Your task to perform on an android device: turn off notifications in google photos Image 0: 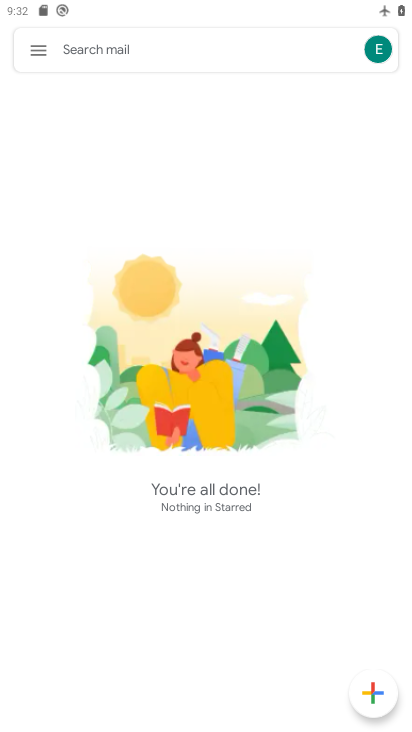
Step 0: press home button
Your task to perform on an android device: turn off notifications in google photos Image 1: 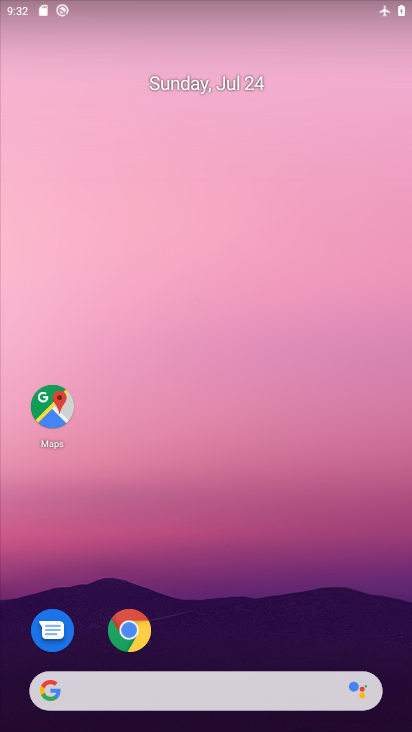
Step 1: drag from (217, 643) to (209, 163)
Your task to perform on an android device: turn off notifications in google photos Image 2: 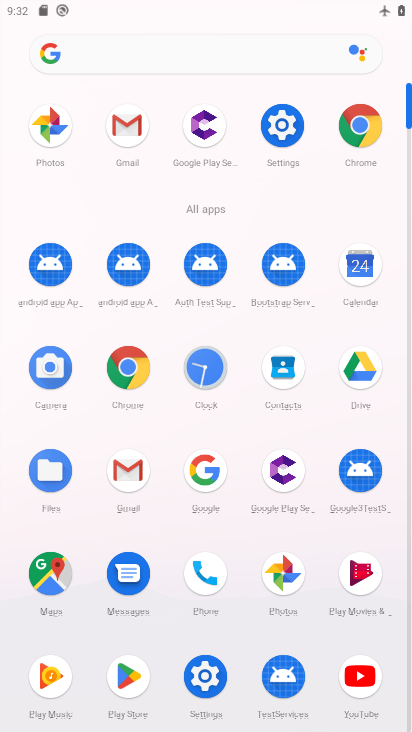
Step 2: click (287, 107)
Your task to perform on an android device: turn off notifications in google photos Image 3: 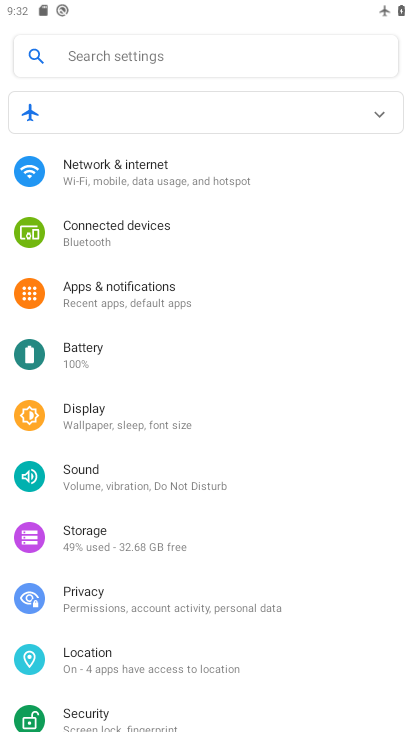
Step 3: press home button
Your task to perform on an android device: turn off notifications in google photos Image 4: 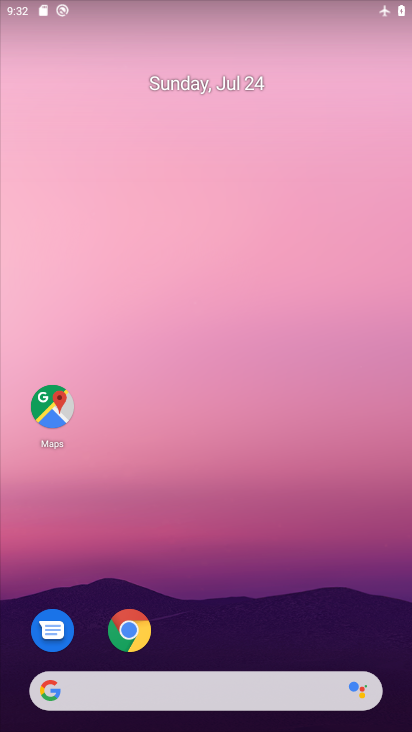
Step 4: drag from (197, 664) to (201, 178)
Your task to perform on an android device: turn off notifications in google photos Image 5: 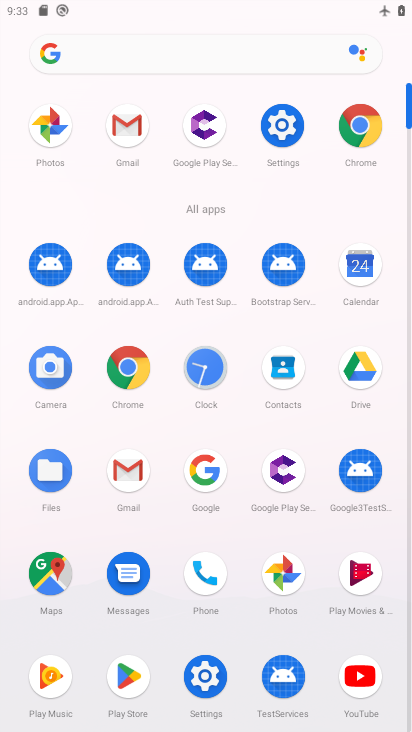
Step 5: click (274, 561)
Your task to perform on an android device: turn off notifications in google photos Image 6: 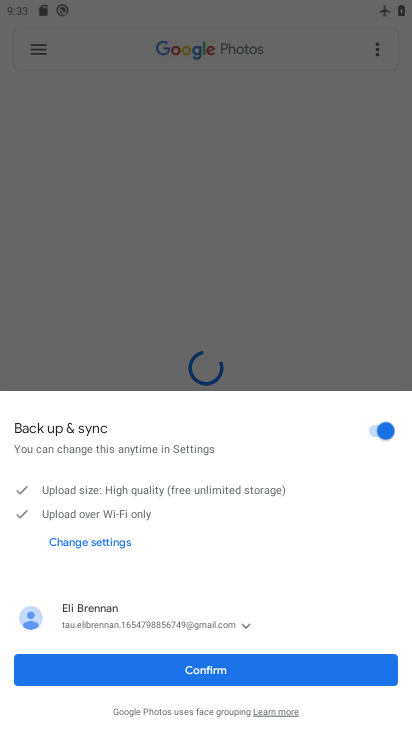
Step 6: click (223, 671)
Your task to perform on an android device: turn off notifications in google photos Image 7: 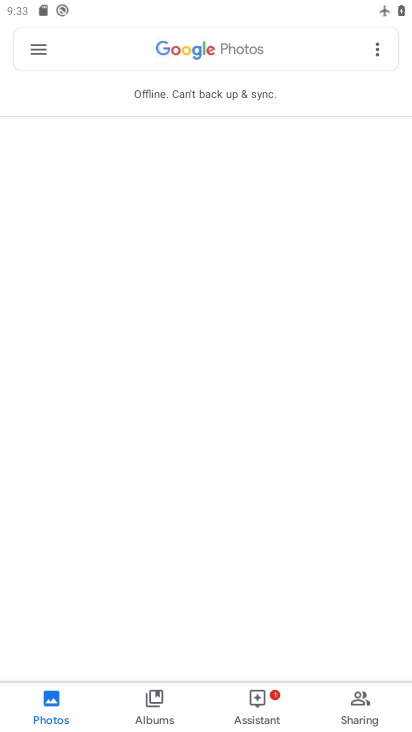
Step 7: click (375, 47)
Your task to perform on an android device: turn off notifications in google photos Image 8: 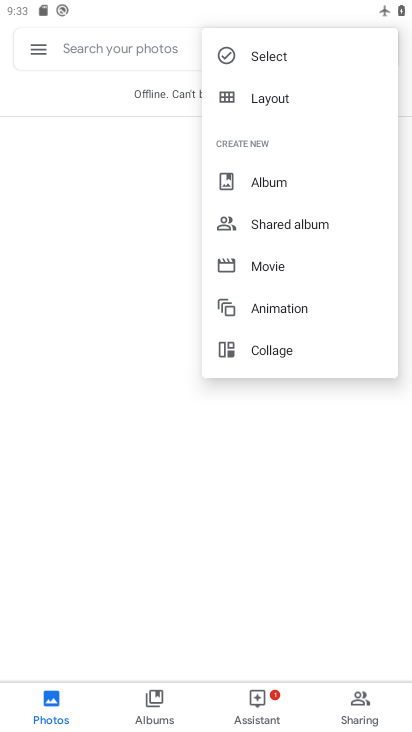
Step 8: click (249, 531)
Your task to perform on an android device: turn off notifications in google photos Image 9: 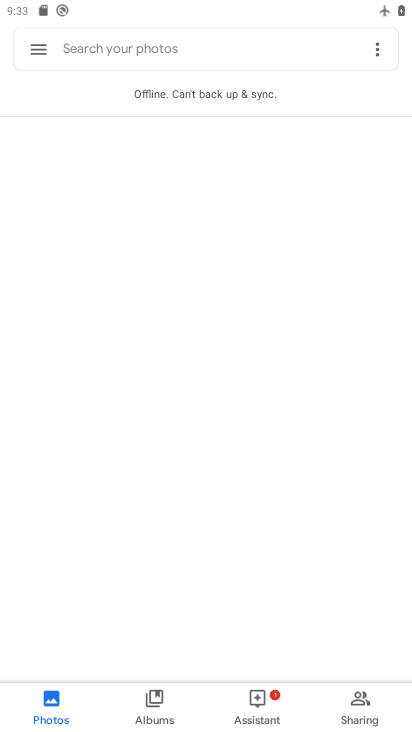
Step 9: click (30, 46)
Your task to perform on an android device: turn off notifications in google photos Image 10: 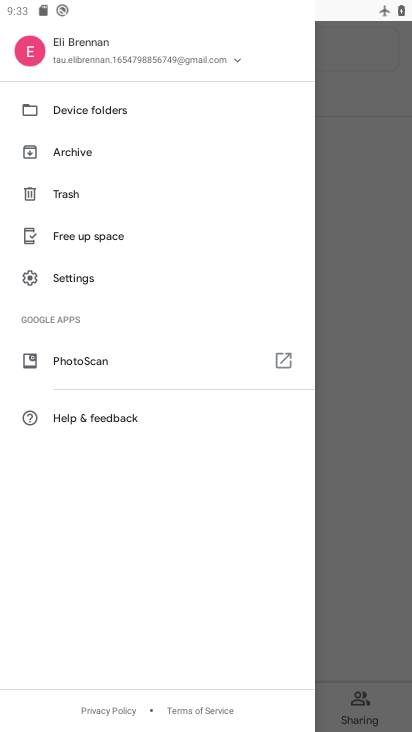
Step 10: click (72, 278)
Your task to perform on an android device: turn off notifications in google photos Image 11: 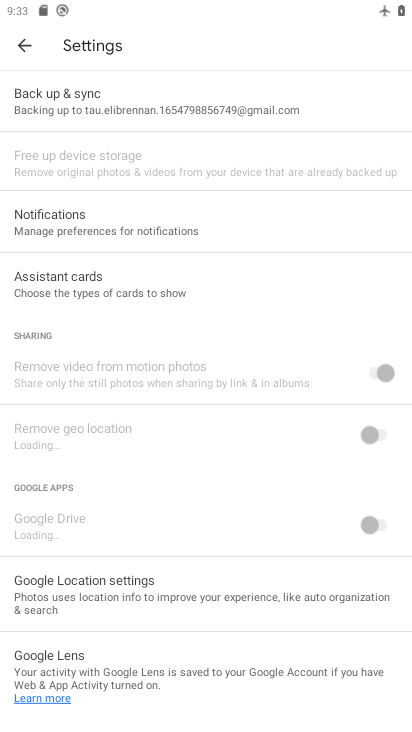
Step 11: click (93, 216)
Your task to perform on an android device: turn off notifications in google photos Image 12: 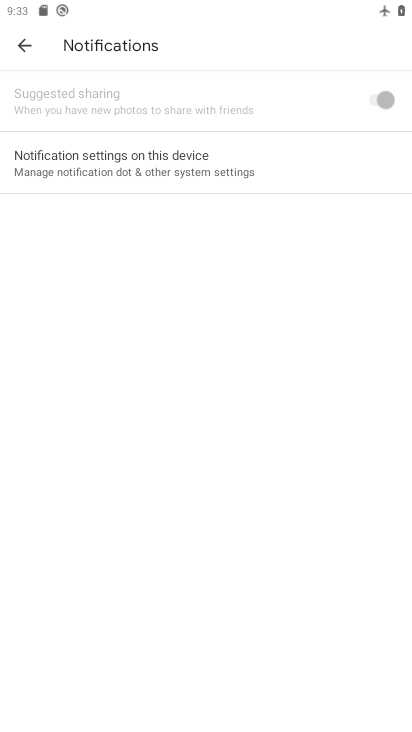
Step 12: click (288, 169)
Your task to perform on an android device: turn off notifications in google photos Image 13: 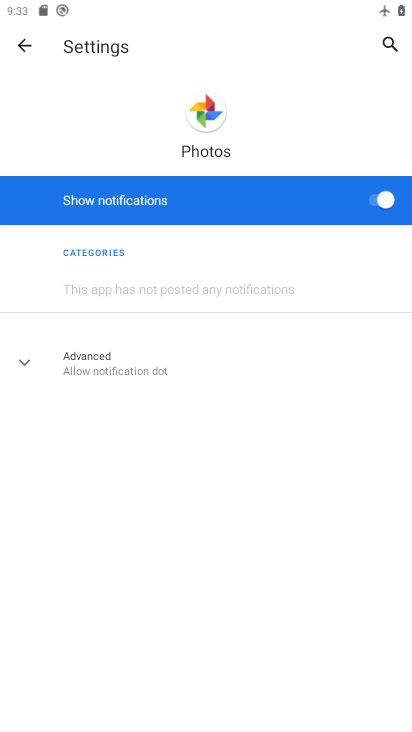
Step 13: click (379, 184)
Your task to perform on an android device: turn off notifications in google photos Image 14: 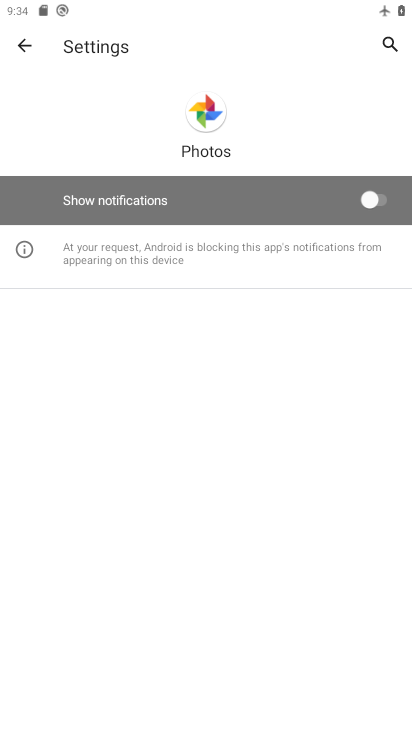
Step 14: task complete